Your task to perform on an android device: search for accent chairs on article.com Image 0: 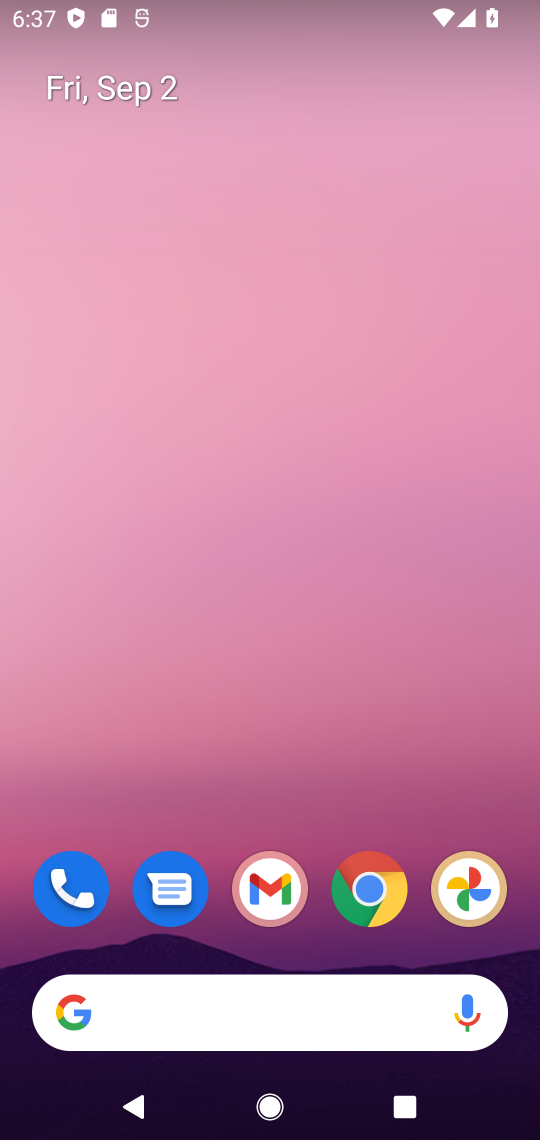
Step 0: drag from (39, 710) to (175, 1030)
Your task to perform on an android device: search for accent chairs on article.com Image 1: 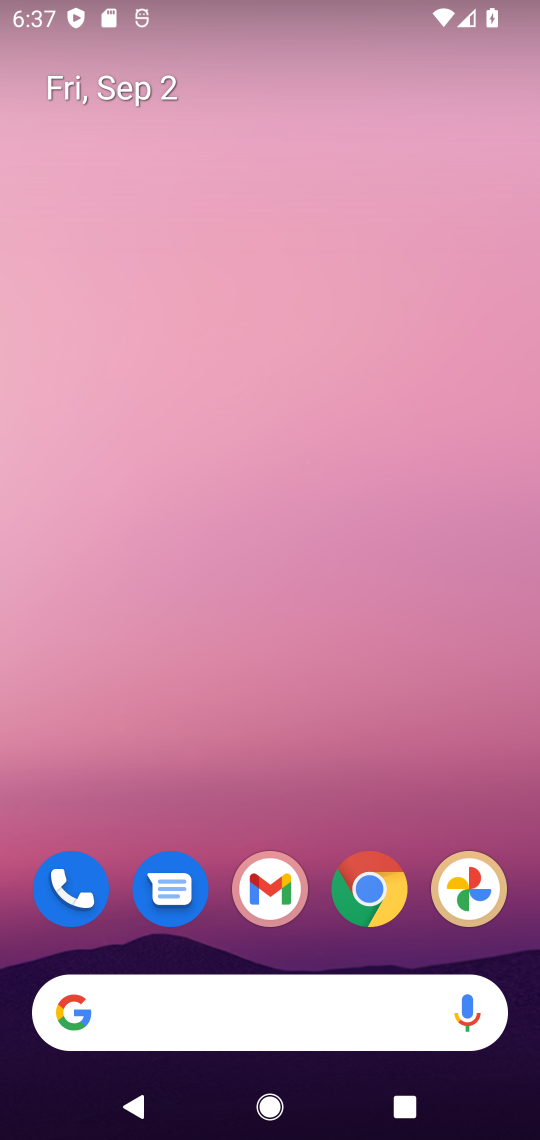
Step 1: click (163, 1005)
Your task to perform on an android device: search for accent chairs on article.com Image 2: 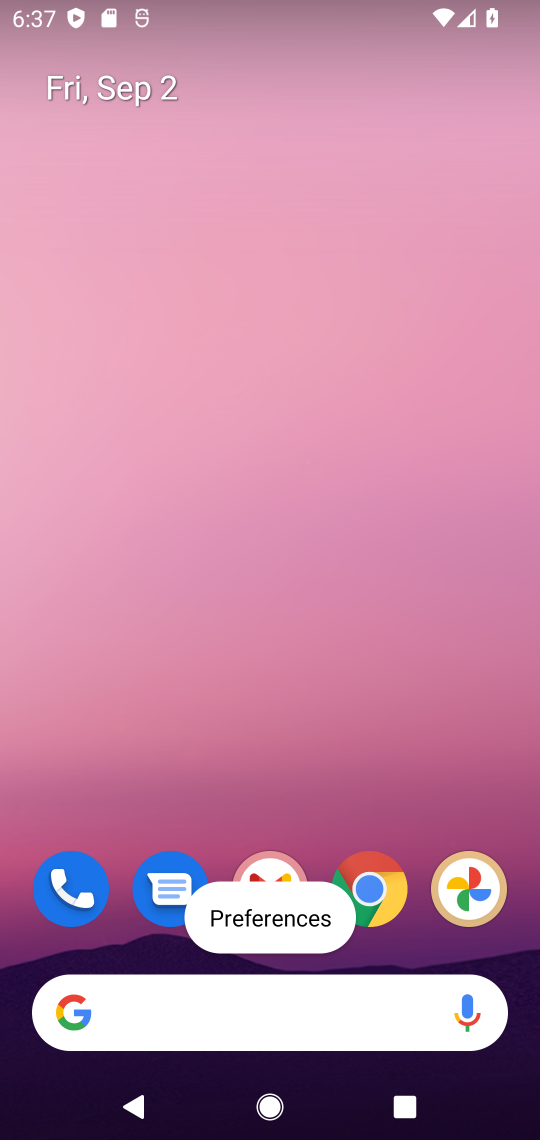
Step 2: click (205, 1003)
Your task to perform on an android device: search for accent chairs on article.com Image 3: 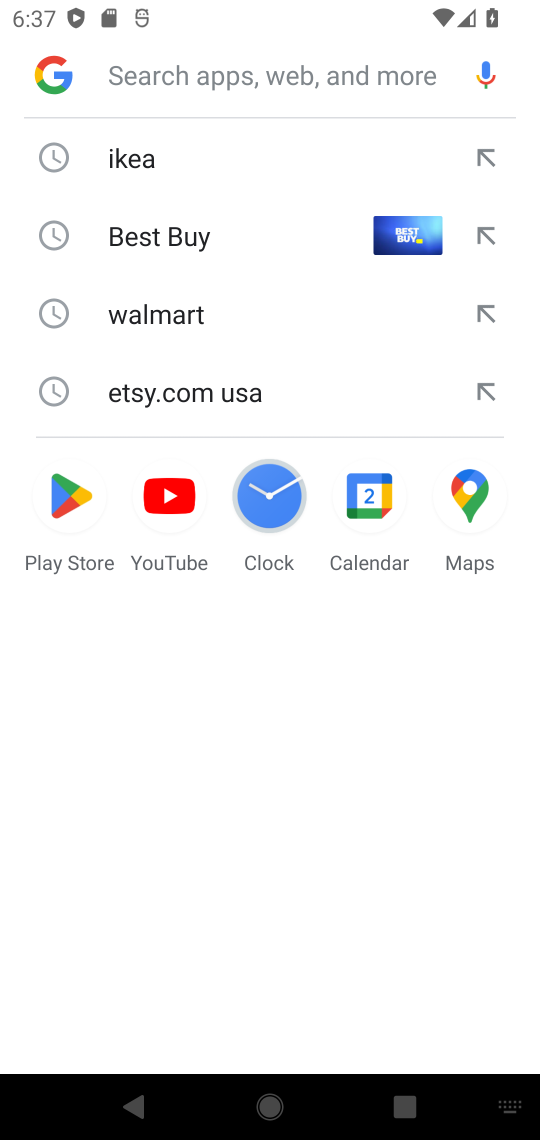
Step 3: type "article.com"
Your task to perform on an android device: search for accent chairs on article.com Image 4: 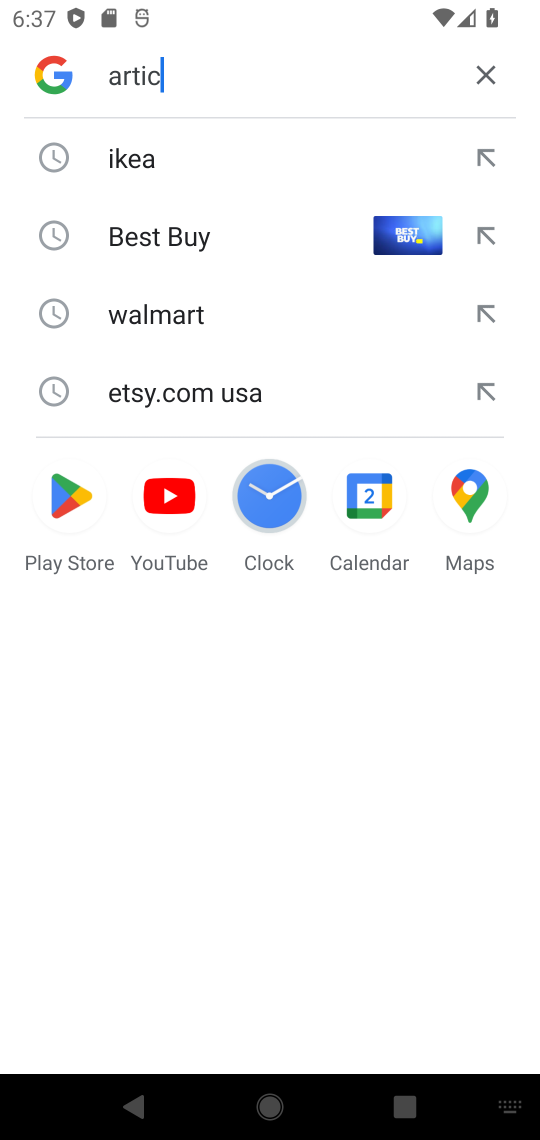
Step 4: type ""
Your task to perform on an android device: search for accent chairs on article.com Image 5: 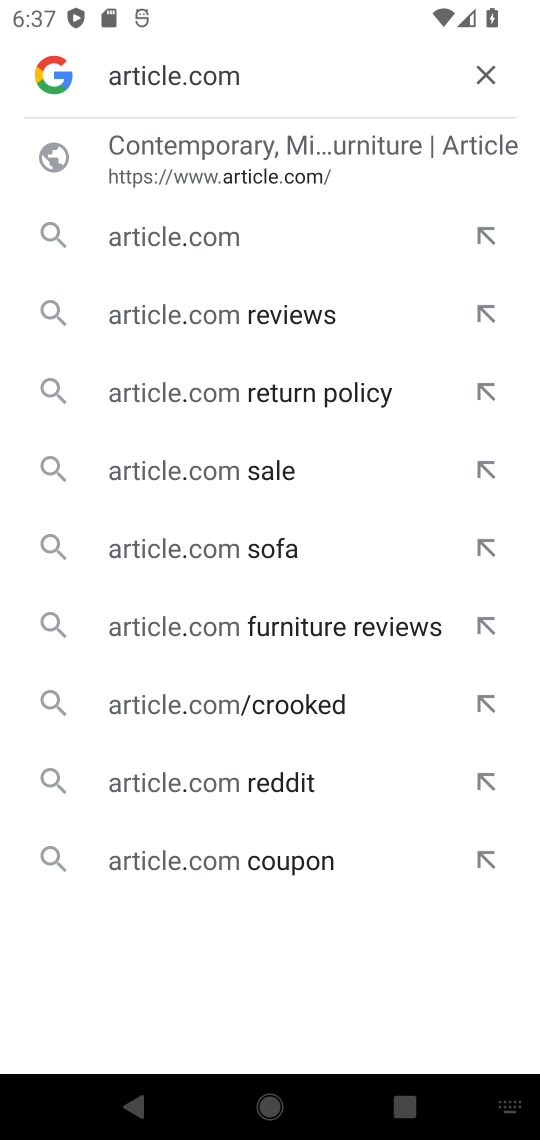
Step 5: click (237, 246)
Your task to perform on an android device: search for accent chairs on article.com Image 6: 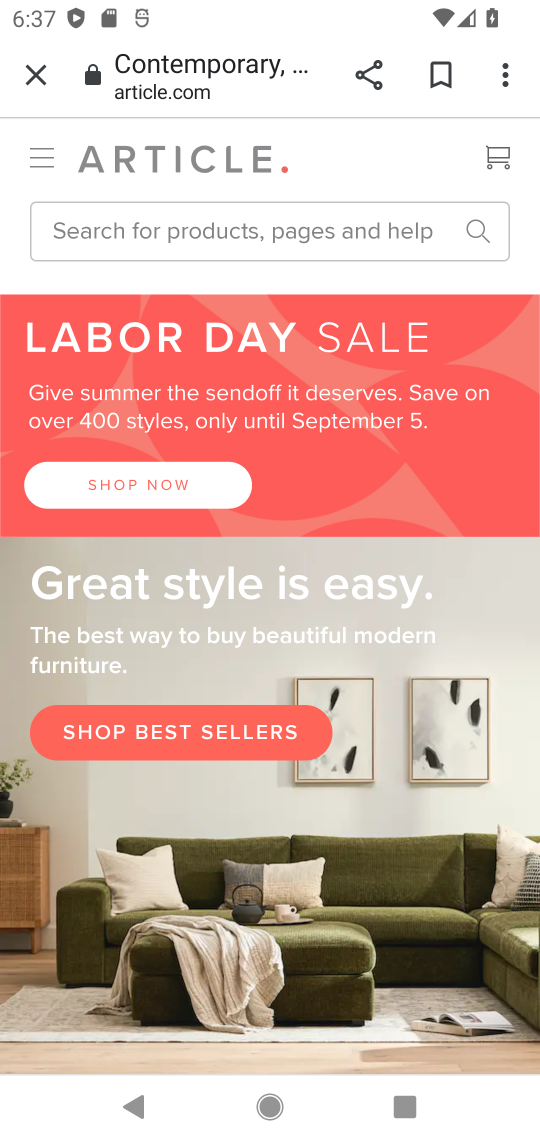
Step 6: click (225, 230)
Your task to perform on an android device: search for accent chairs on article.com Image 7: 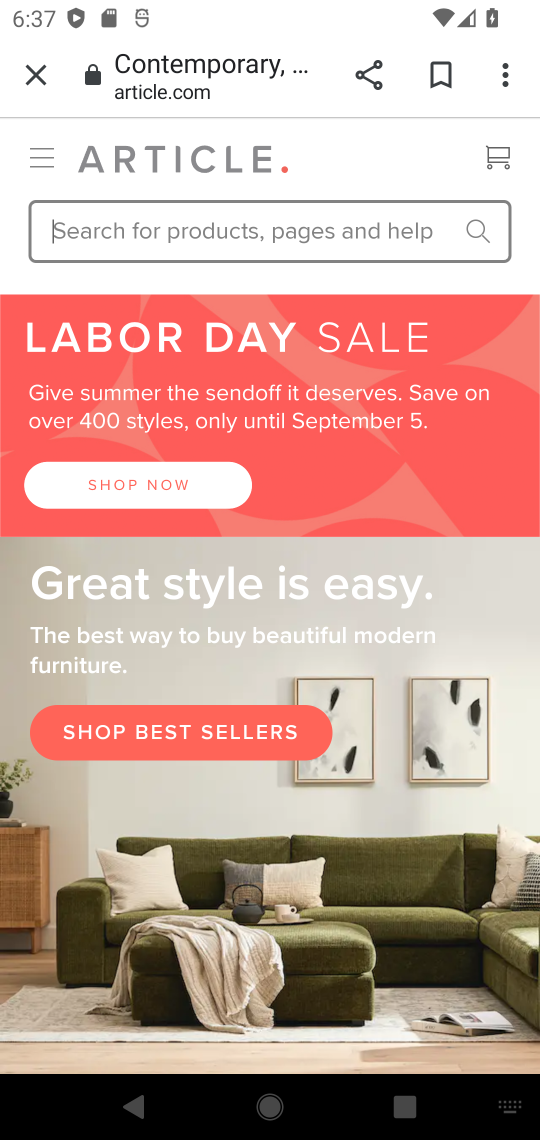
Step 7: click (376, 221)
Your task to perform on an android device: search for accent chairs on article.com Image 8: 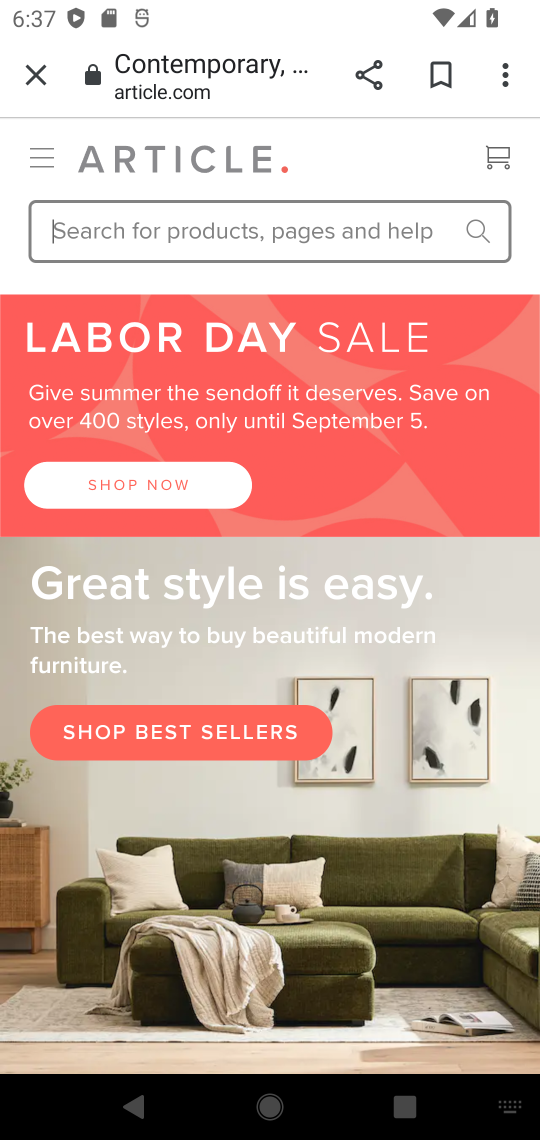
Step 8: click (118, 209)
Your task to perform on an android device: search for accent chairs on article.com Image 9: 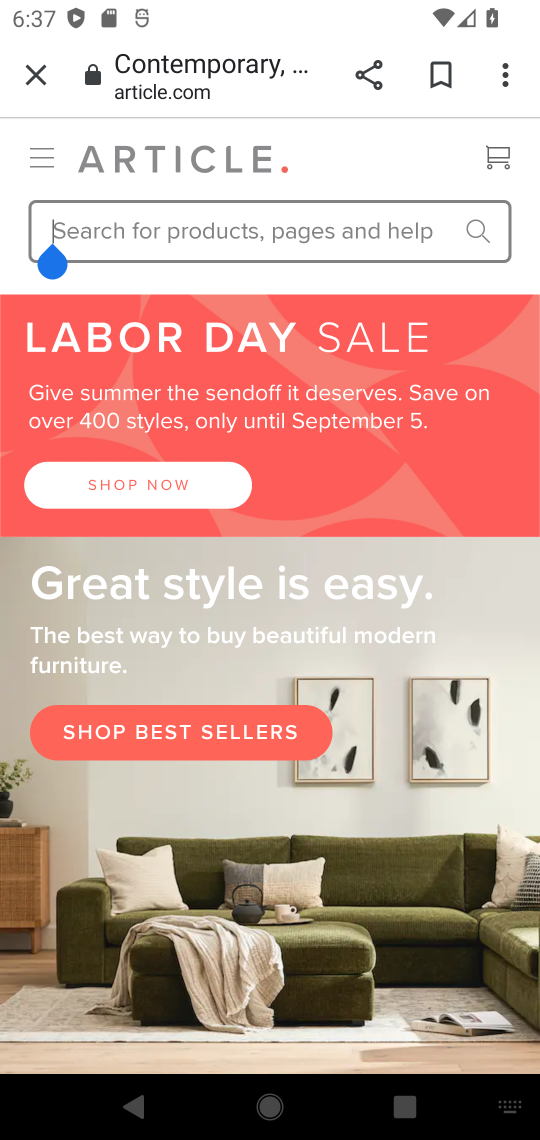
Step 9: type "accent chairs"
Your task to perform on an android device: search for accent chairs on article.com Image 10: 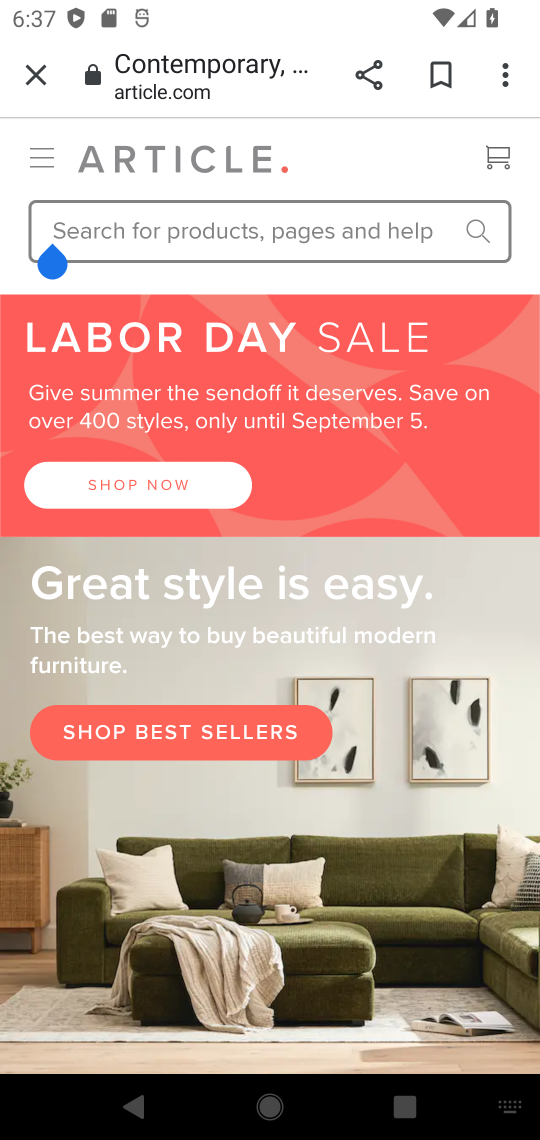
Step 10: type ""
Your task to perform on an android device: search for accent chairs on article.com Image 11: 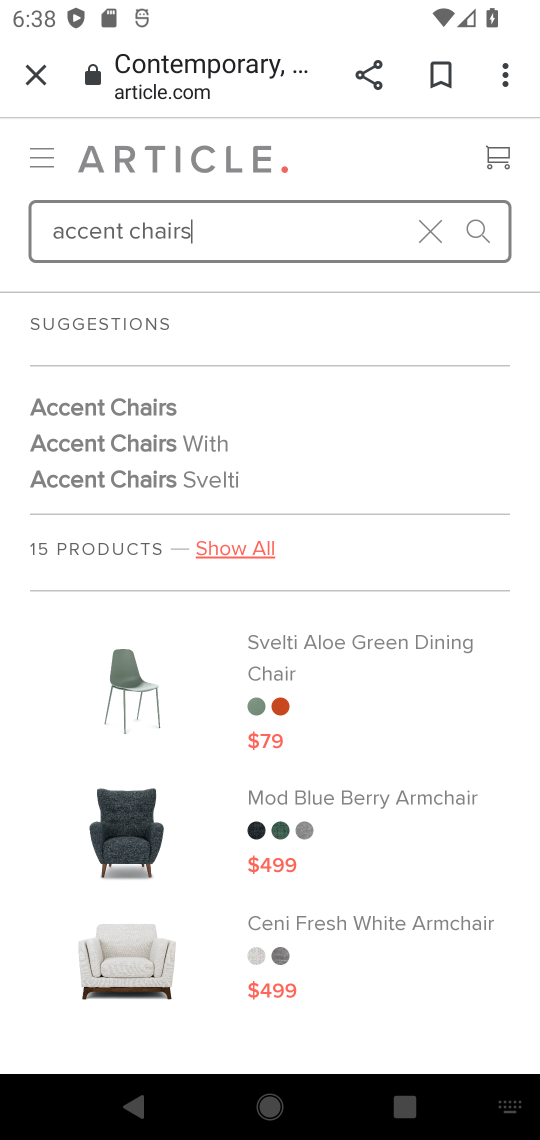
Step 11: click (479, 236)
Your task to perform on an android device: search for accent chairs on article.com Image 12: 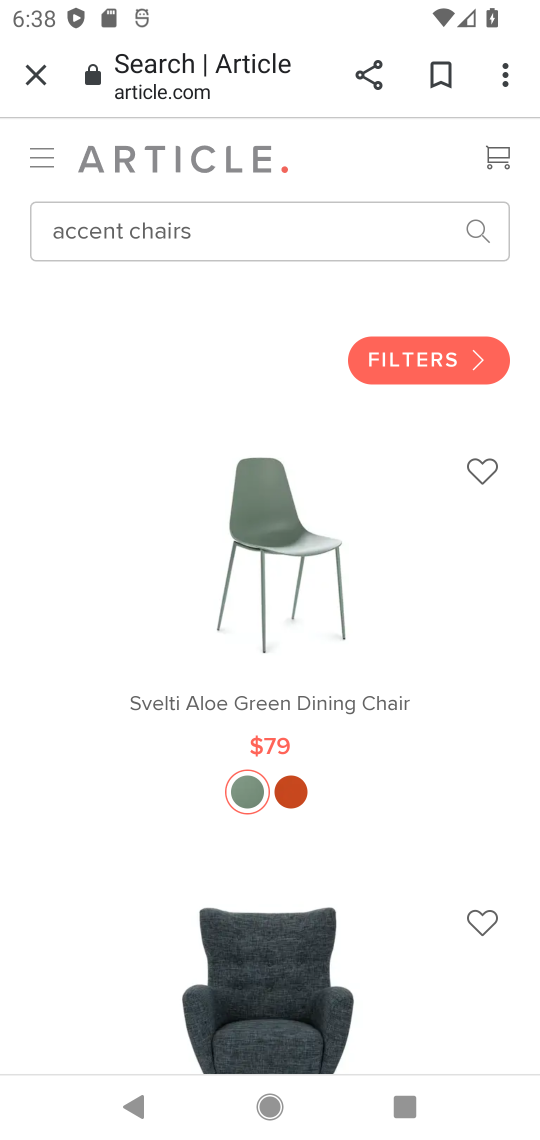
Step 12: task complete